Your task to perform on an android device: turn on bluetooth scan Image 0: 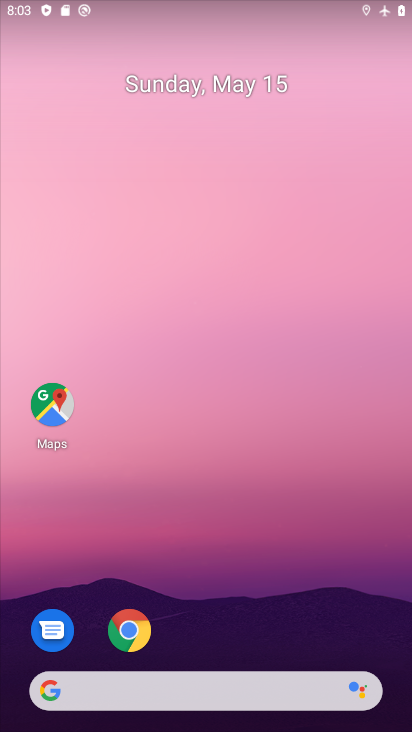
Step 0: drag from (235, 303) to (303, 53)
Your task to perform on an android device: turn on bluetooth scan Image 1: 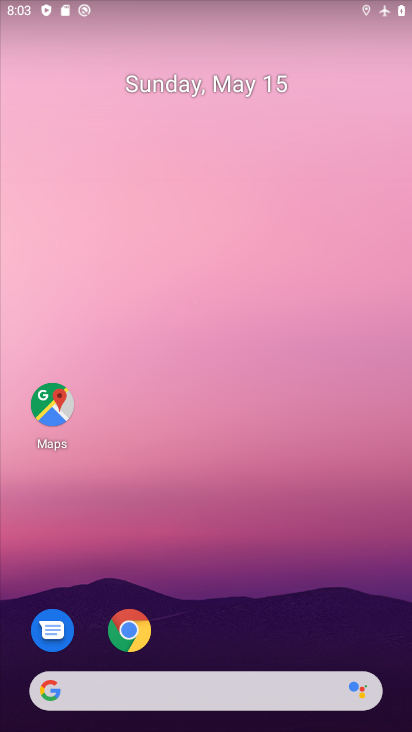
Step 1: drag from (212, 644) to (305, 5)
Your task to perform on an android device: turn on bluetooth scan Image 2: 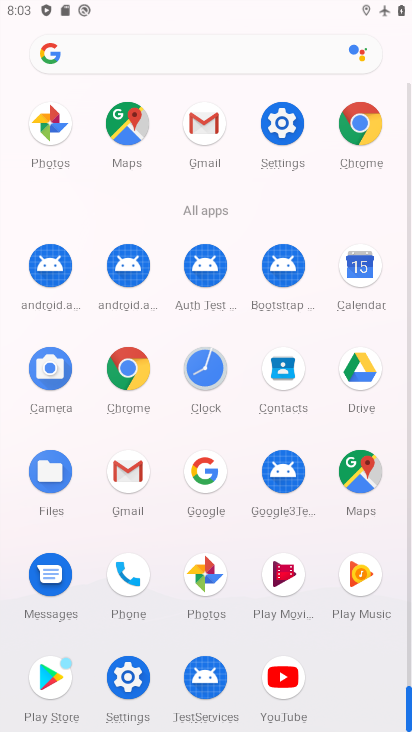
Step 2: click (129, 679)
Your task to perform on an android device: turn on bluetooth scan Image 3: 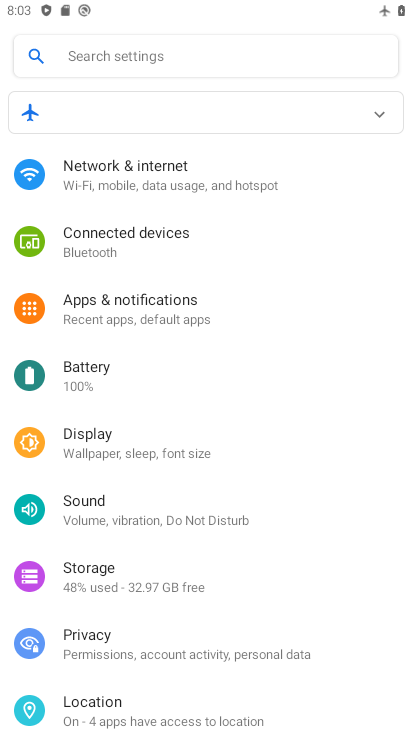
Step 3: drag from (154, 575) to (180, 405)
Your task to perform on an android device: turn on bluetooth scan Image 4: 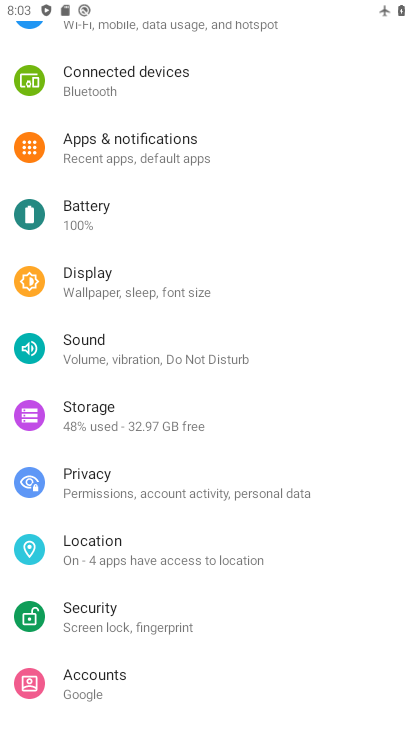
Step 4: click (138, 547)
Your task to perform on an android device: turn on bluetooth scan Image 5: 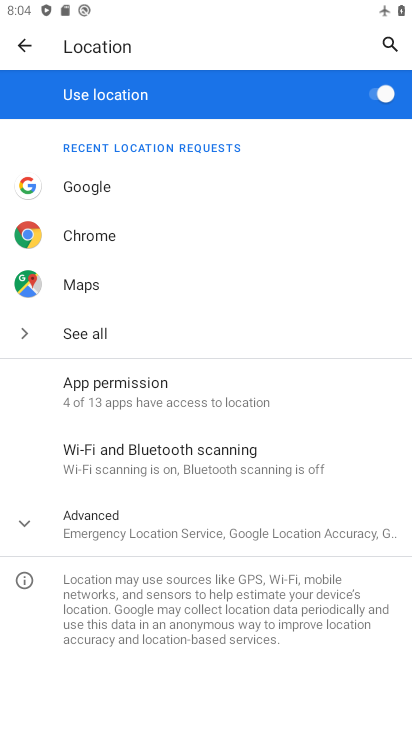
Step 5: click (141, 528)
Your task to perform on an android device: turn on bluetooth scan Image 6: 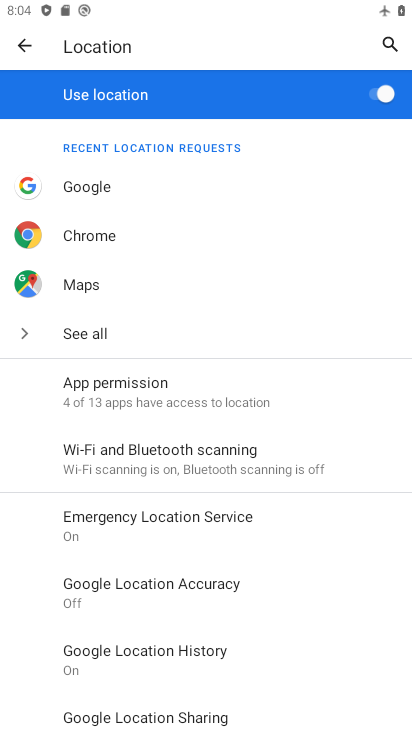
Step 6: click (164, 469)
Your task to perform on an android device: turn on bluetooth scan Image 7: 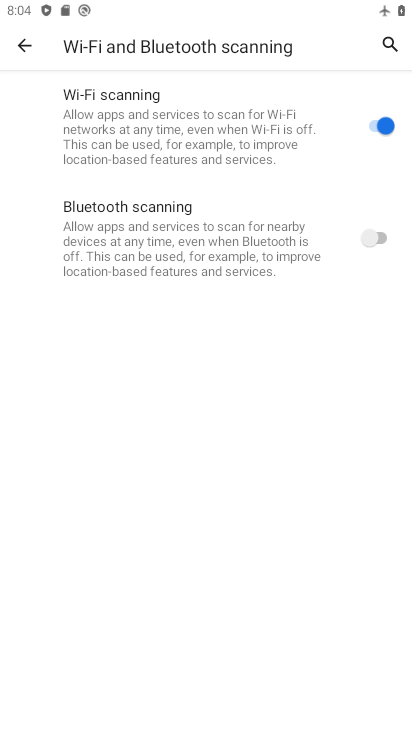
Step 7: click (387, 232)
Your task to perform on an android device: turn on bluetooth scan Image 8: 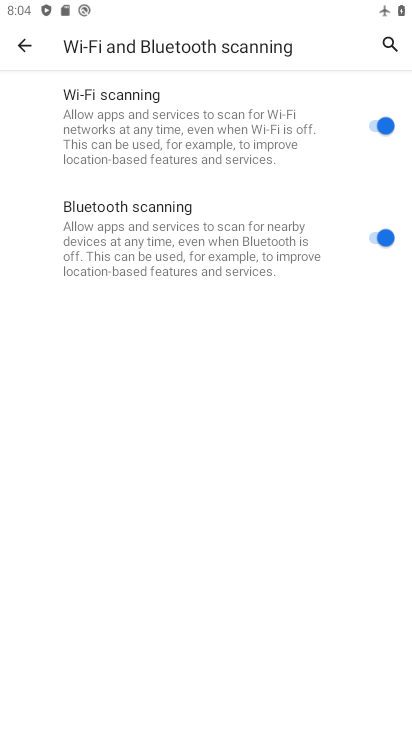
Step 8: task complete